Your task to perform on an android device: Open the calendar app, open the side menu, and click the "Day" option Image 0: 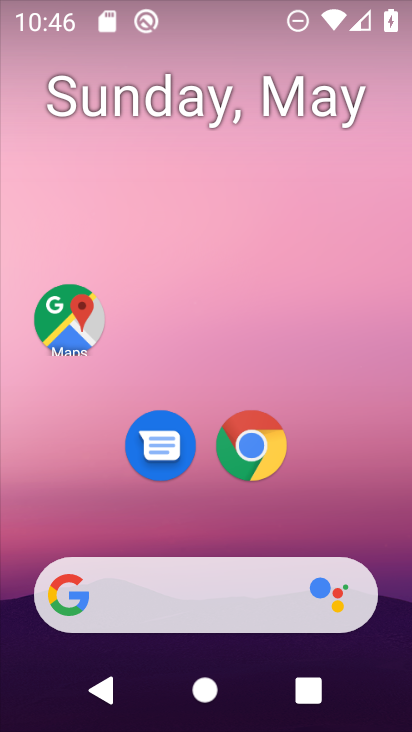
Step 0: drag from (227, 516) to (307, 49)
Your task to perform on an android device: Open the calendar app, open the side menu, and click the "Day" option Image 1: 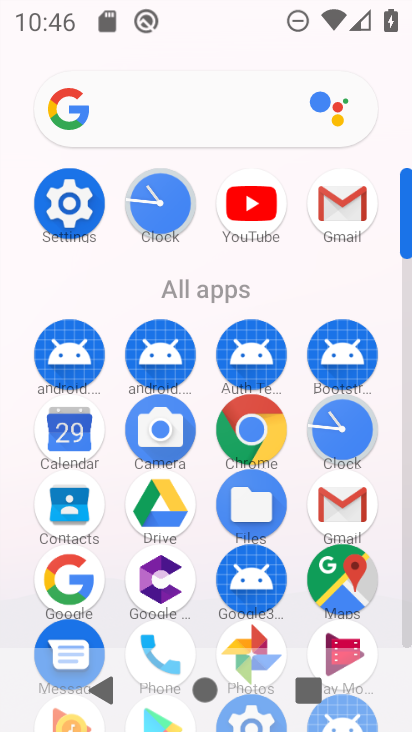
Step 1: click (76, 428)
Your task to perform on an android device: Open the calendar app, open the side menu, and click the "Day" option Image 2: 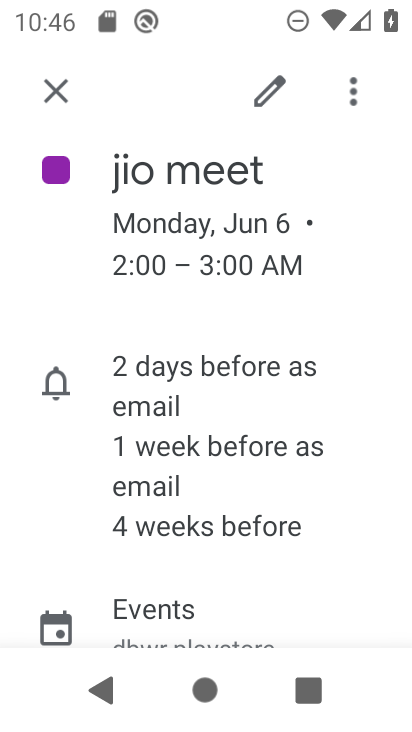
Step 2: click (53, 88)
Your task to perform on an android device: Open the calendar app, open the side menu, and click the "Day" option Image 3: 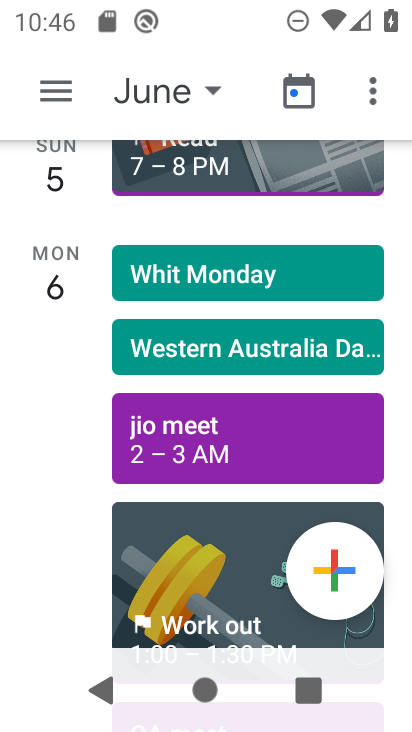
Step 3: click (45, 85)
Your task to perform on an android device: Open the calendar app, open the side menu, and click the "Day" option Image 4: 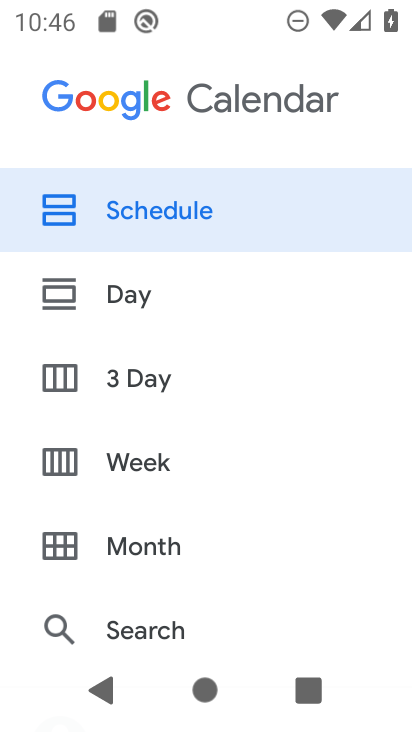
Step 4: click (127, 295)
Your task to perform on an android device: Open the calendar app, open the side menu, and click the "Day" option Image 5: 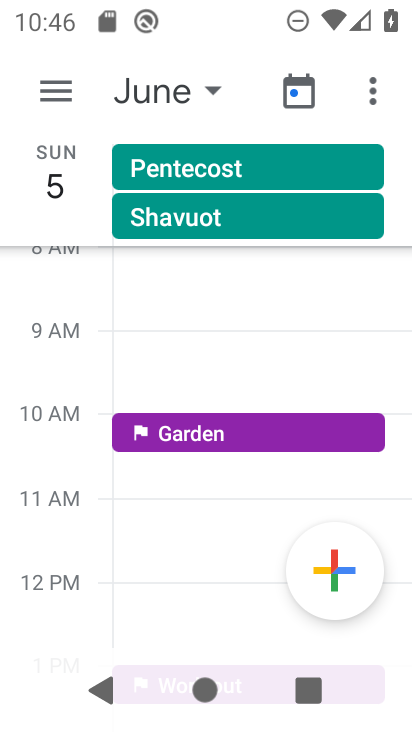
Step 5: task complete